Your task to perform on an android device: Open Youtube and go to "Your channel" Image 0: 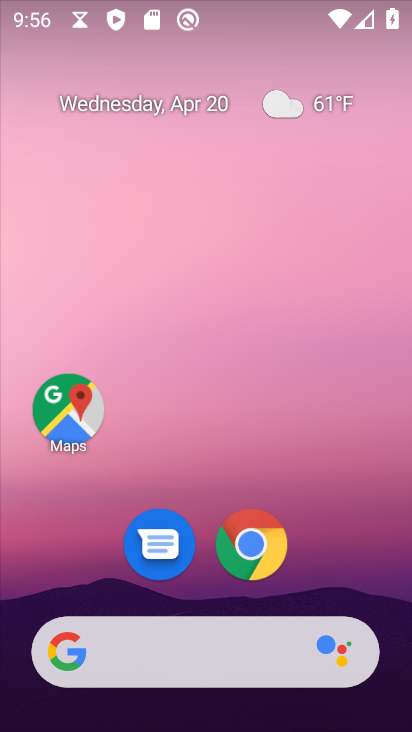
Step 0: drag from (221, 278) to (236, 103)
Your task to perform on an android device: Open Youtube and go to "Your channel" Image 1: 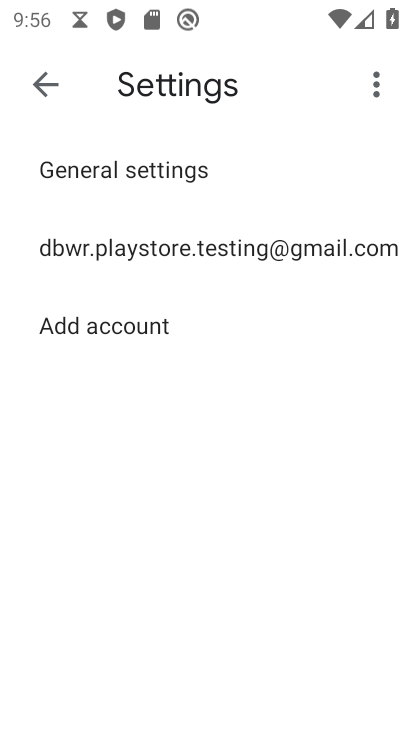
Step 1: press home button
Your task to perform on an android device: Open Youtube and go to "Your channel" Image 2: 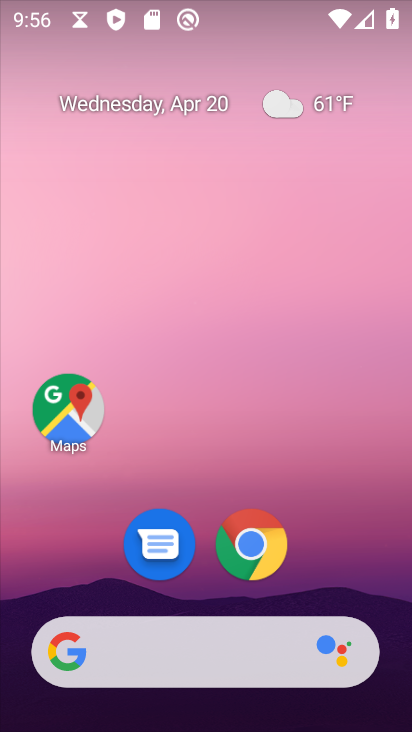
Step 2: drag from (150, 650) to (268, 87)
Your task to perform on an android device: Open Youtube and go to "Your channel" Image 3: 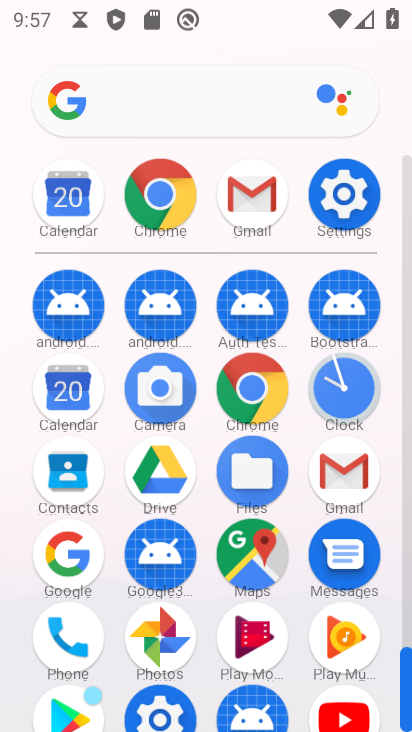
Step 3: click (339, 714)
Your task to perform on an android device: Open Youtube and go to "Your channel" Image 4: 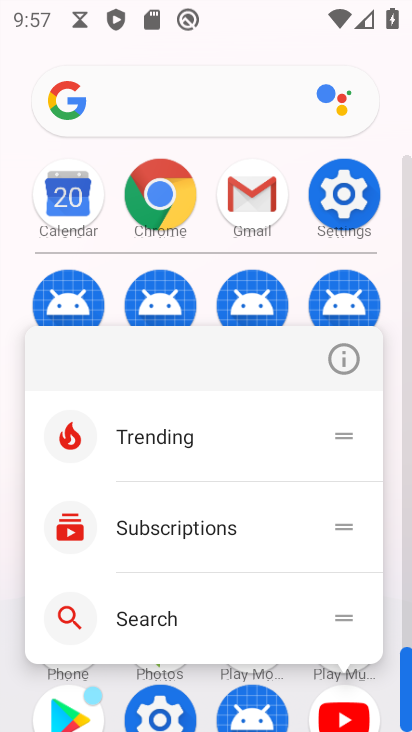
Step 4: click (344, 718)
Your task to perform on an android device: Open Youtube and go to "Your channel" Image 5: 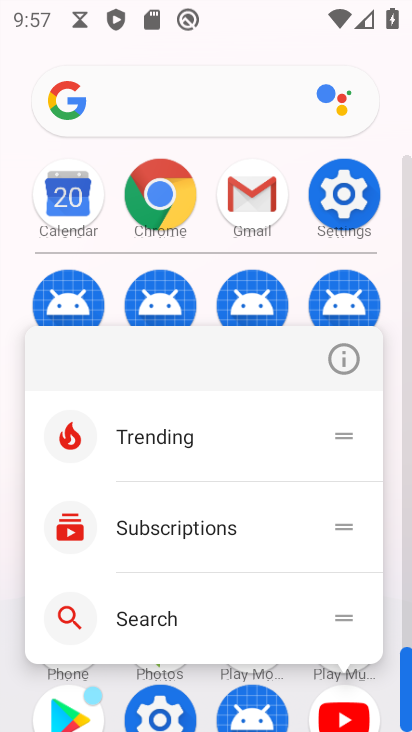
Step 5: click (344, 718)
Your task to perform on an android device: Open Youtube and go to "Your channel" Image 6: 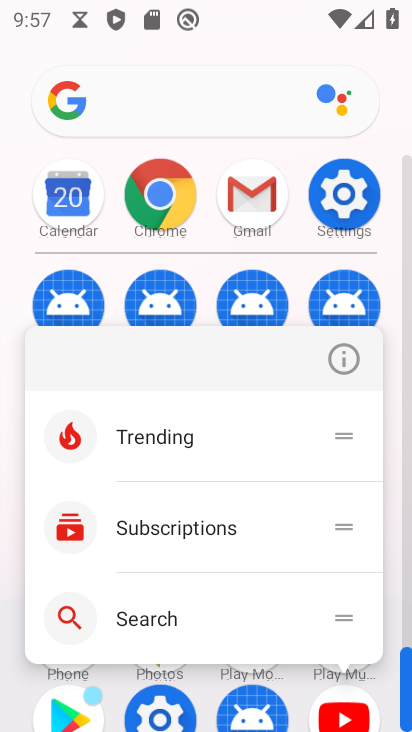
Step 6: click (341, 719)
Your task to perform on an android device: Open Youtube and go to "Your channel" Image 7: 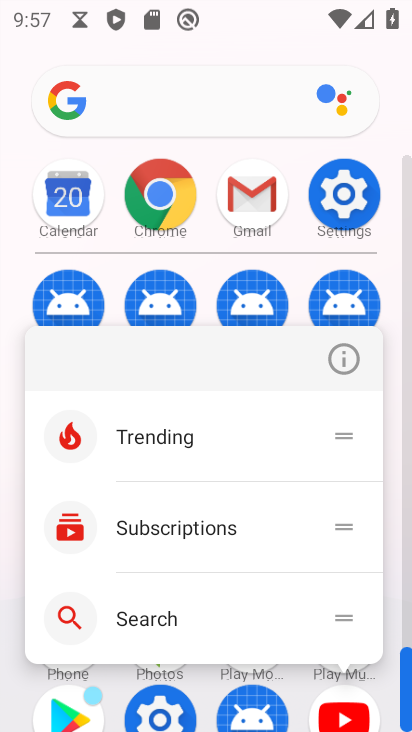
Step 7: click (342, 713)
Your task to perform on an android device: Open Youtube and go to "Your channel" Image 8: 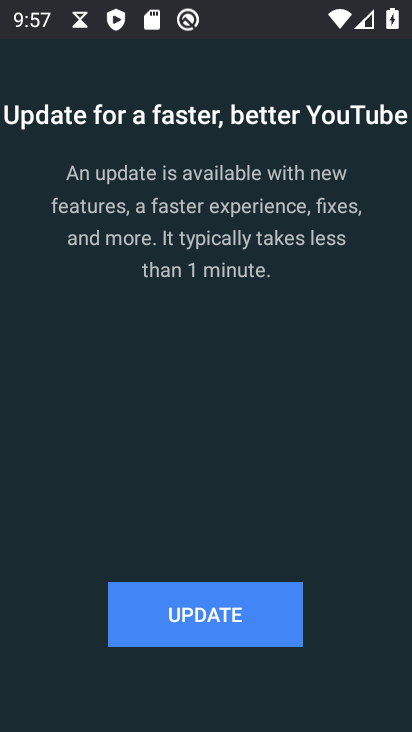
Step 8: click (208, 617)
Your task to perform on an android device: Open Youtube and go to "Your channel" Image 9: 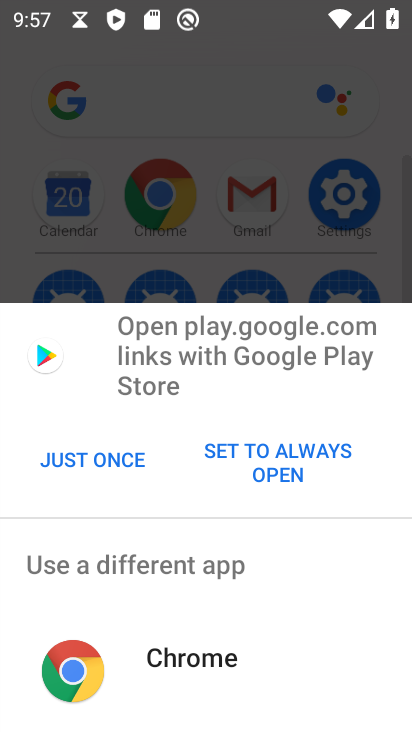
Step 9: click (100, 451)
Your task to perform on an android device: Open Youtube and go to "Your channel" Image 10: 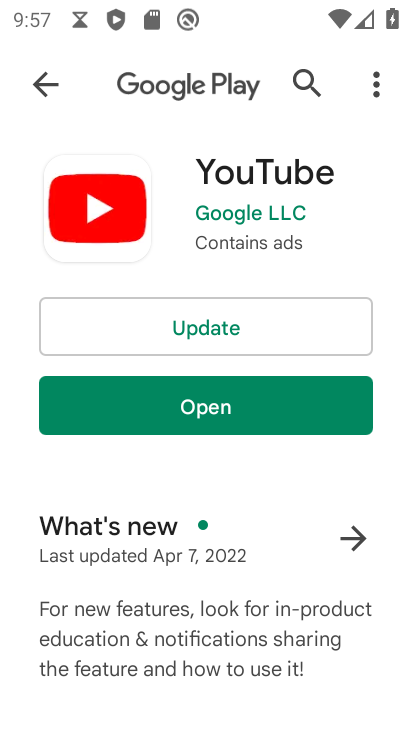
Step 10: click (213, 322)
Your task to perform on an android device: Open Youtube and go to "Your channel" Image 11: 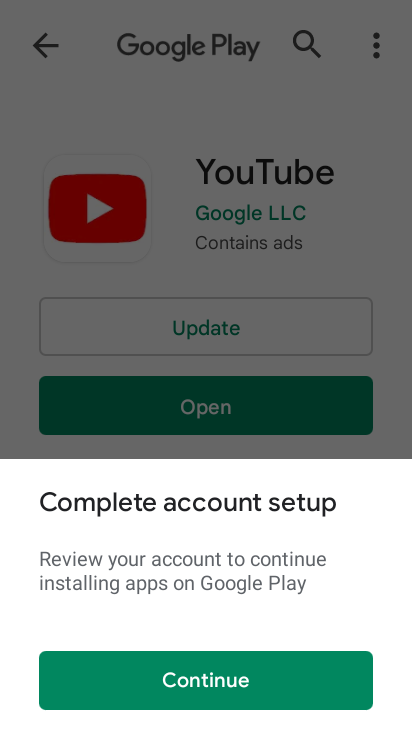
Step 11: drag from (328, 246) to (373, 15)
Your task to perform on an android device: Open Youtube and go to "Your channel" Image 12: 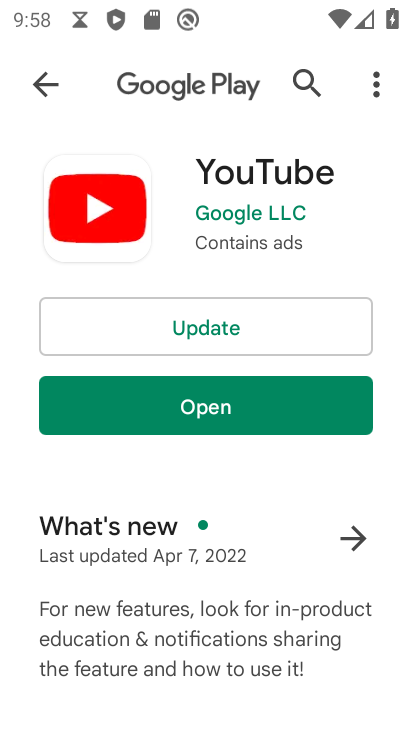
Step 12: press back button
Your task to perform on an android device: Open Youtube and go to "Your channel" Image 13: 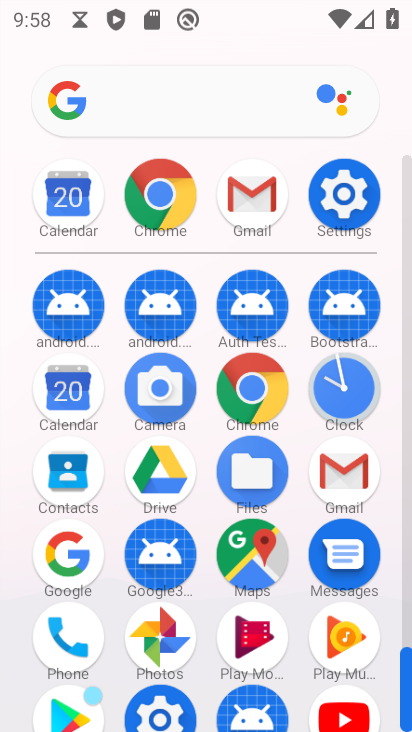
Step 13: click (336, 711)
Your task to perform on an android device: Open Youtube and go to "Your channel" Image 14: 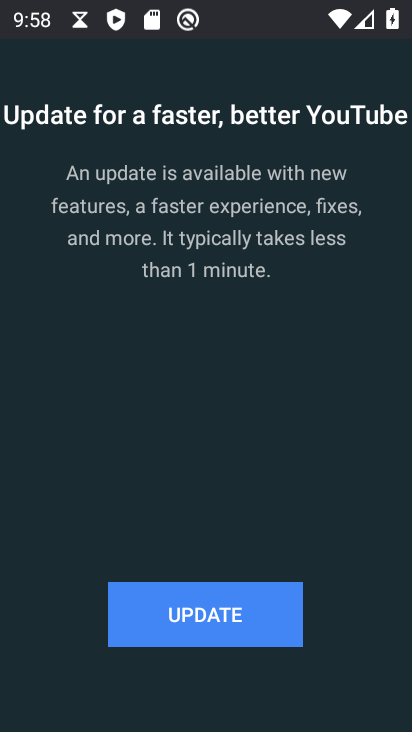
Step 14: click (191, 614)
Your task to perform on an android device: Open Youtube and go to "Your channel" Image 15: 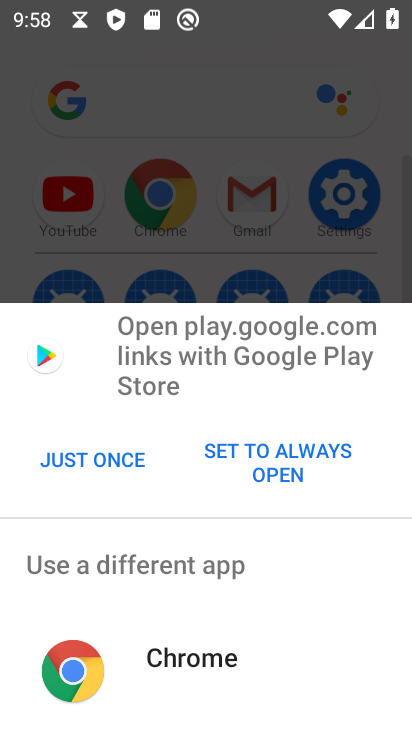
Step 15: click (102, 457)
Your task to perform on an android device: Open Youtube and go to "Your channel" Image 16: 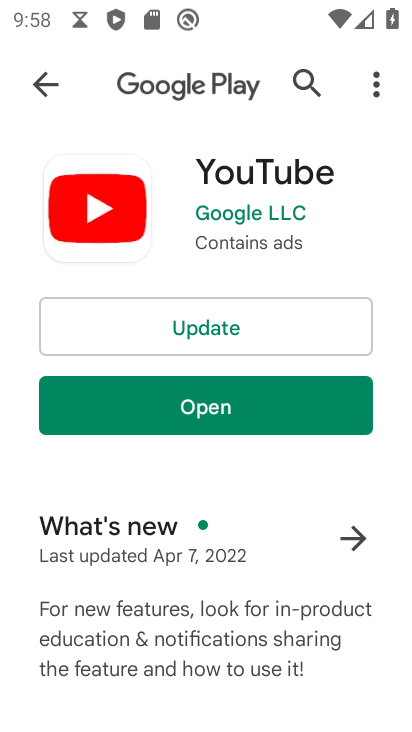
Step 16: click (221, 405)
Your task to perform on an android device: Open Youtube and go to "Your channel" Image 17: 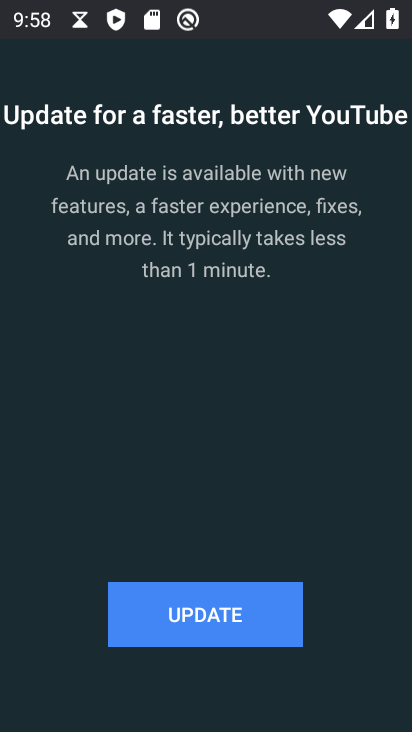
Step 17: task complete